Your task to perform on an android device: change notification settings in the gmail app Image 0: 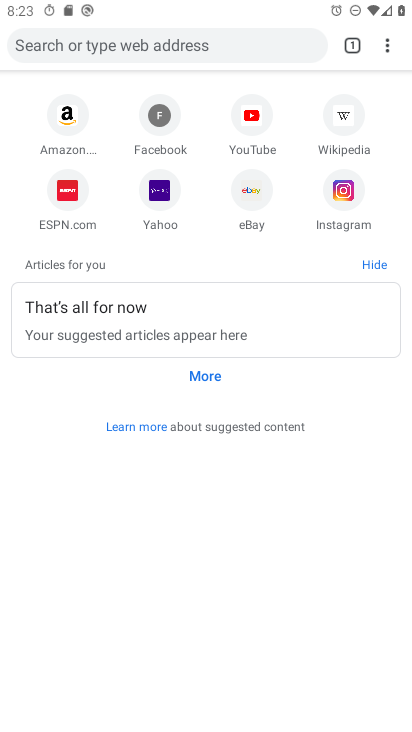
Step 0: press home button
Your task to perform on an android device: change notification settings in the gmail app Image 1: 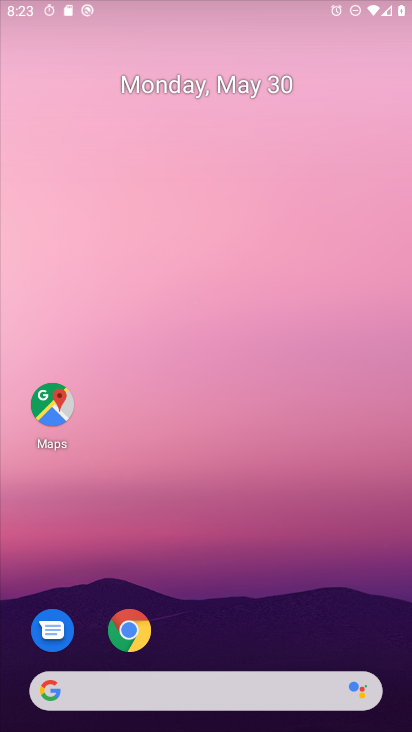
Step 1: drag from (367, 652) to (282, 122)
Your task to perform on an android device: change notification settings in the gmail app Image 2: 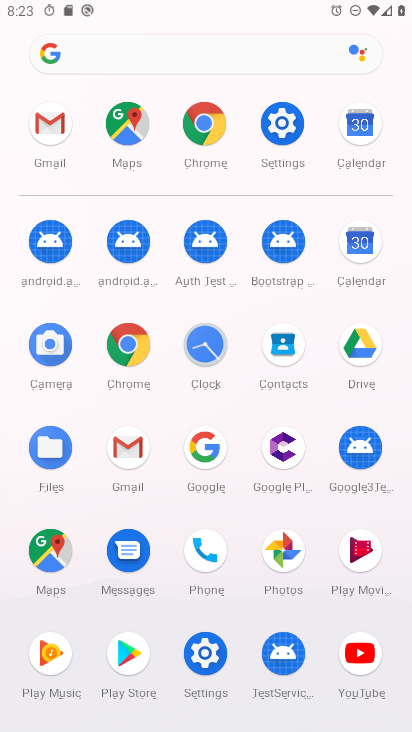
Step 2: click (114, 455)
Your task to perform on an android device: change notification settings in the gmail app Image 3: 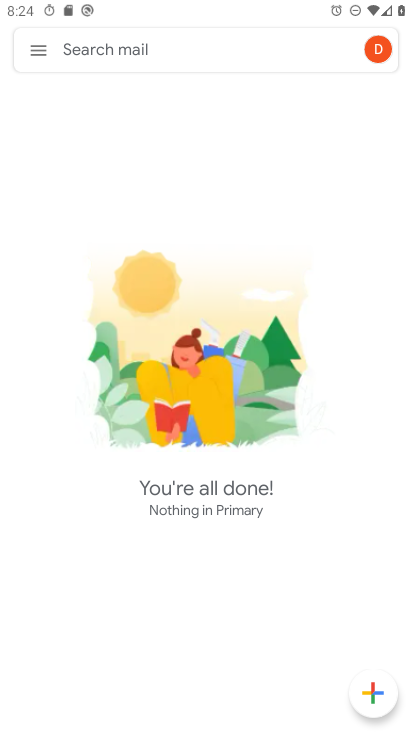
Step 3: click (41, 52)
Your task to perform on an android device: change notification settings in the gmail app Image 4: 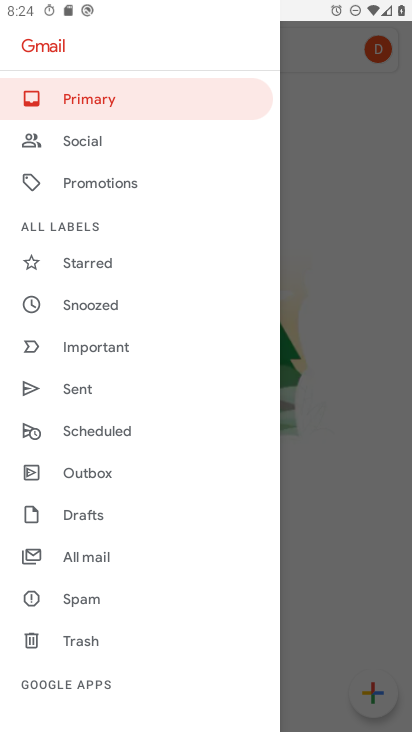
Step 4: drag from (118, 681) to (162, 193)
Your task to perform on an android device: change notification settings in the gmail app Image 5: 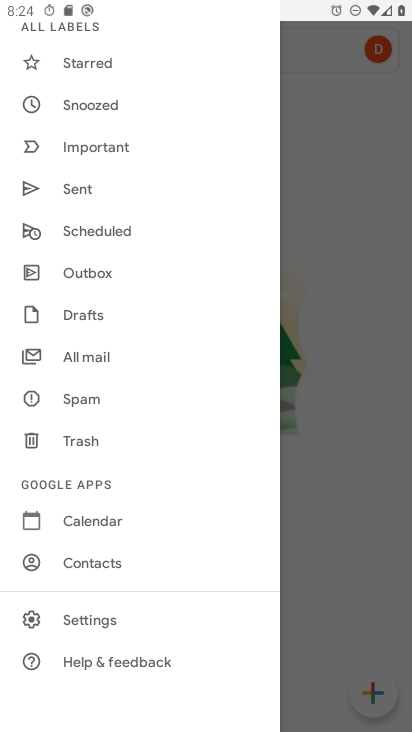
Step 5: click (109, 635)
Your task to perform on an android device: change notification settings in the gmail app Image 6: 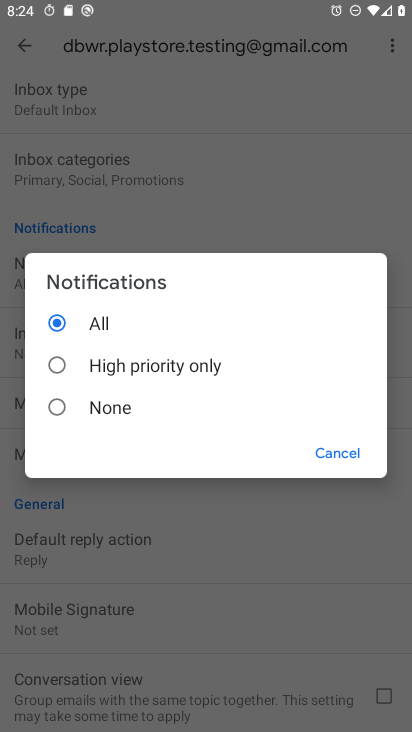
Step 6: click (108, 408)
Your task to perform on an android device: change notification settings in the gmail app Image 7: 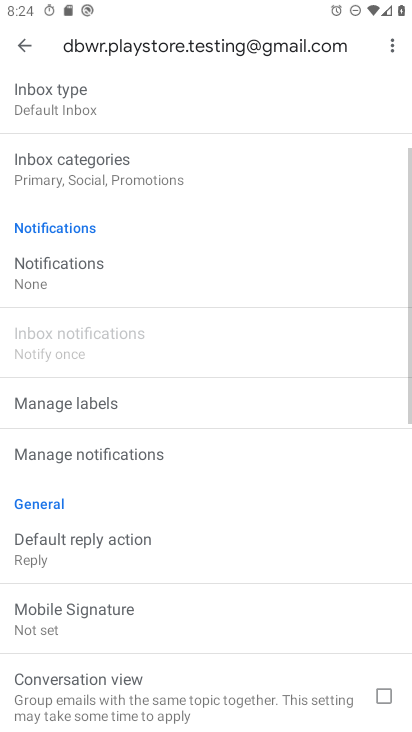
Step 7: task complete